Your task to perform on an android device: What's the weather going to be this weekend? Image 0: 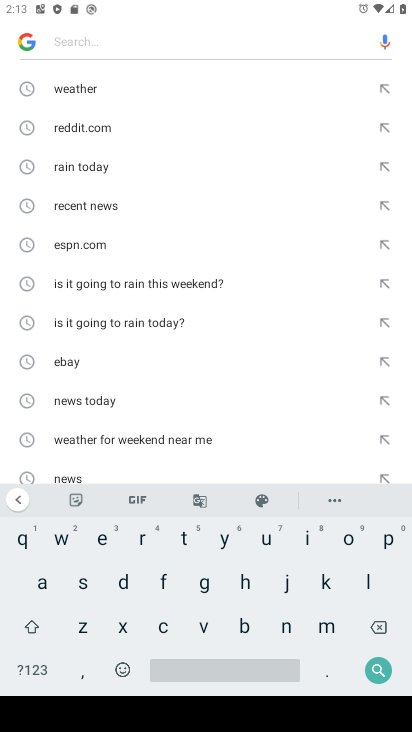
Step 0: press home button
Your task to perform on an android device: What's the weather going to be this weekend? Image 1: 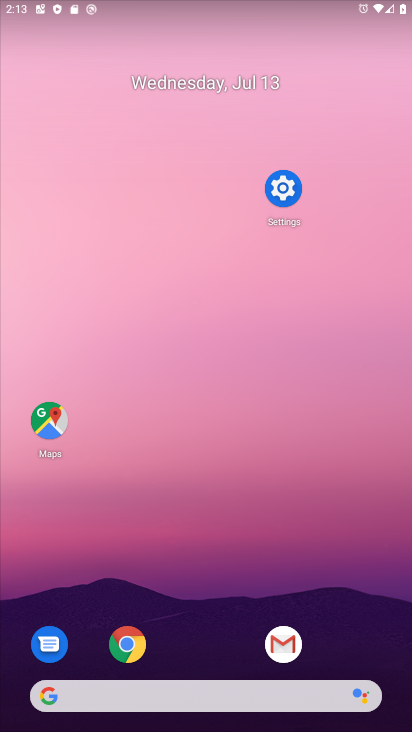
Step 1: drag from (222, 713) to (385, 168)
Your task to perform on an android device: What's the weather going to be this weekend? Image 2: 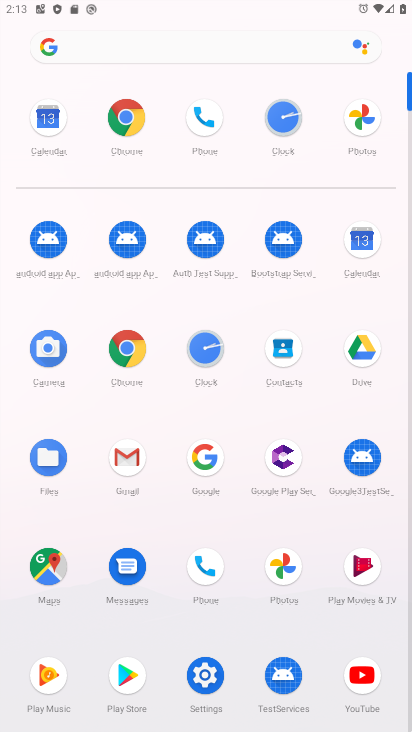
Step 2: click (356, 256)
Your task to perform on an android device: What's the weather going to be this weekend? Image 3: 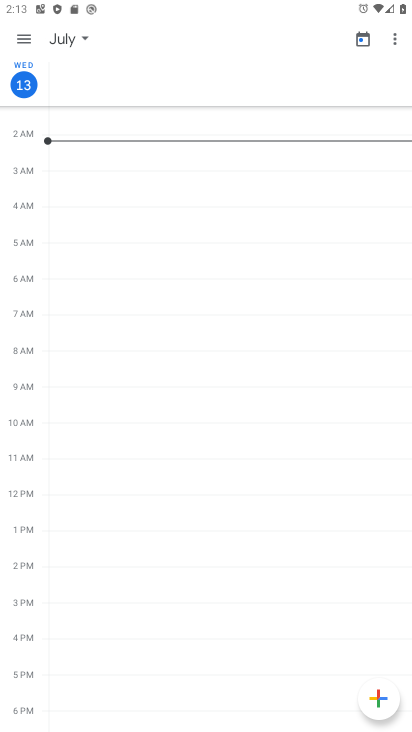
Step 3: press home button
Your task to perform on an android device: What's the weather going to be this weekend? Image 4: 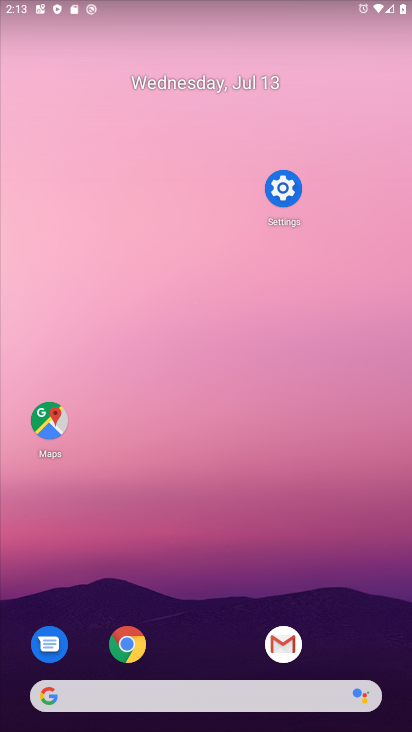
Step 4: click (128, 688)
Your task to perform on an android device: What's the weather going to be this weekend? Image 5: 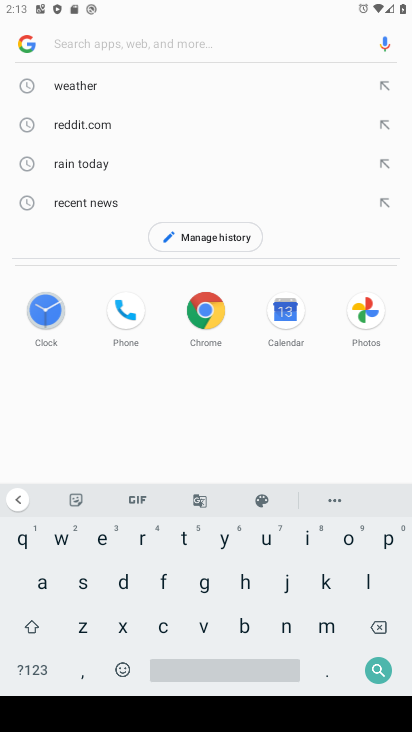
Step 5: click (124, 81)
Your task to perform on an android device: What's the weather going to be this weekend? Image 6: 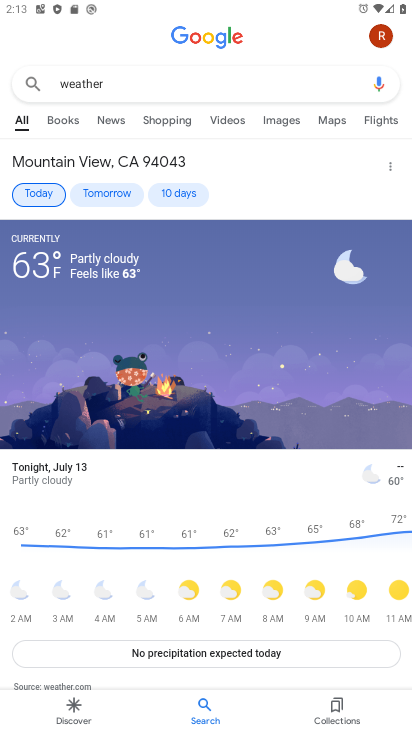
Step 6: click (177, 188)
Your task to perform on an android device: What's the weather going to be this weekend? Image 7: 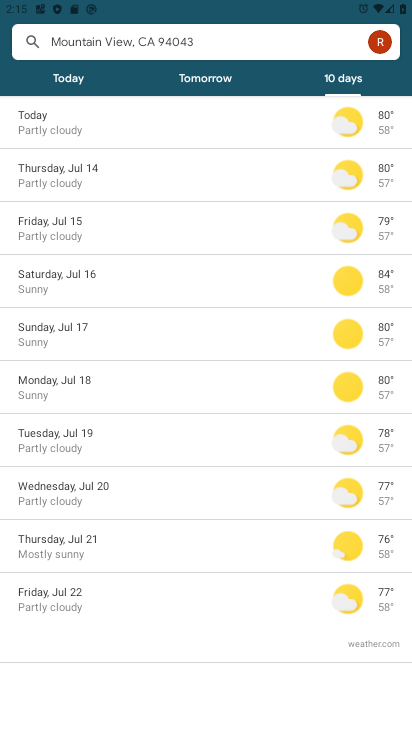
Step 7: task complete